Your task to perform on an android device: stop showing notifications on the lock screen Image 0: 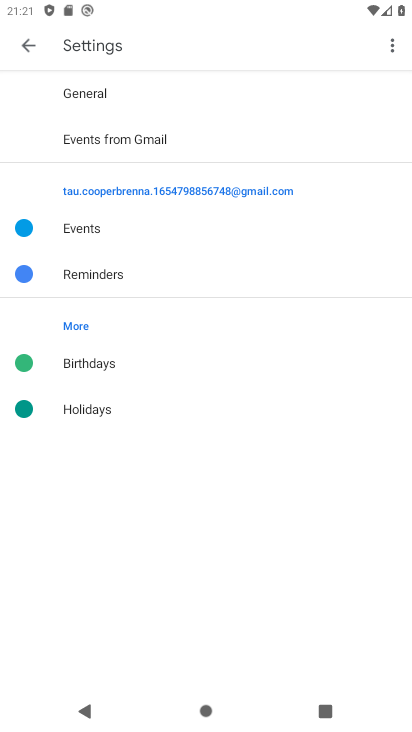
Step 0: press back button
Your task to perform on an android device: stop showing notifications on the lock screen Image 1: 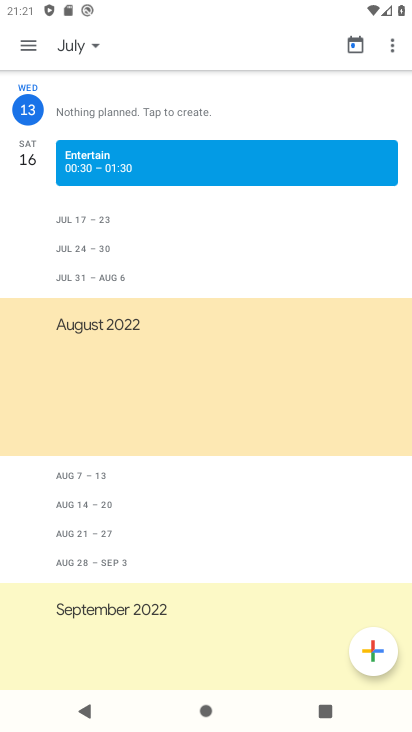
Step 1: press back button
Your task to perform on an android device: stop showing notifications on the lock screen Image 2: 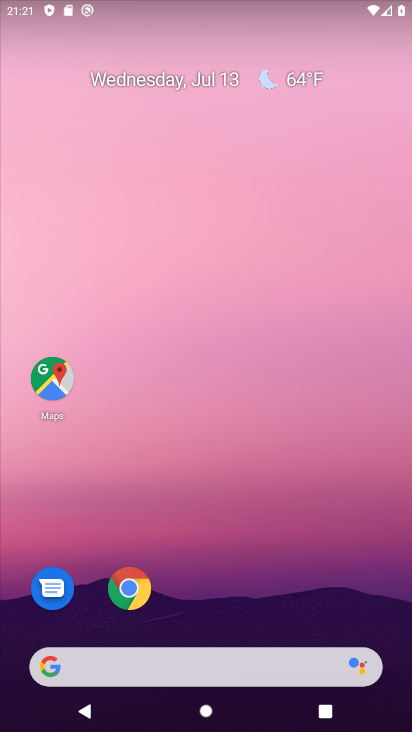
Step 2: drag from (239, 573) to (313, 1)
Your task to perform on an android device: stop showing notifications on the lock screen Image 3: 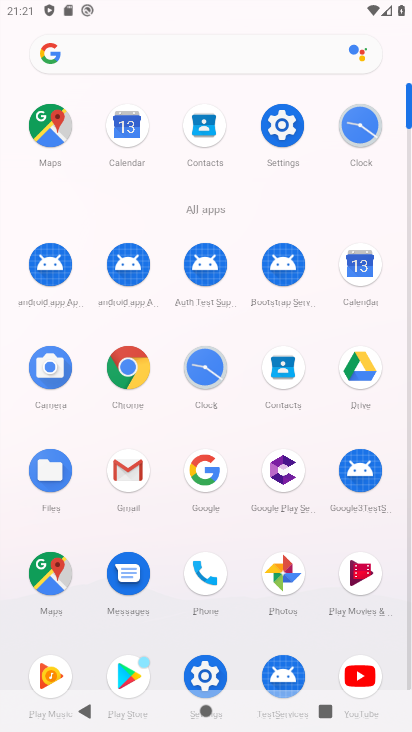
Step 3: click (292, 117)
Your task to perform on an android device: stop showing notifications on the lock screen Image 4: 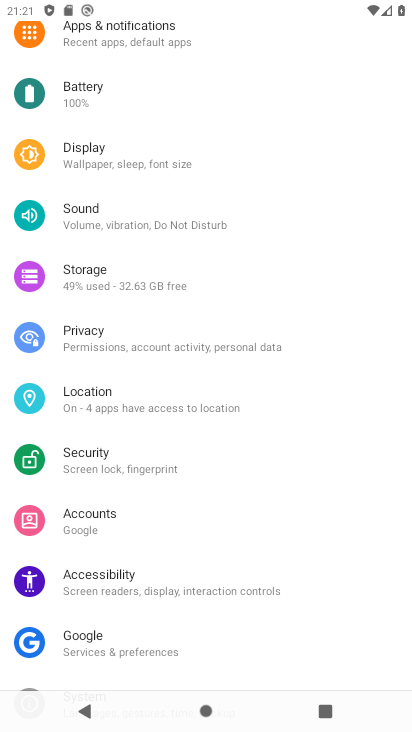
Step 4: drag from (282, 138) to (238, 631)
Your task to perform on an android device: stop showing notifications on the lock screen Image 5: 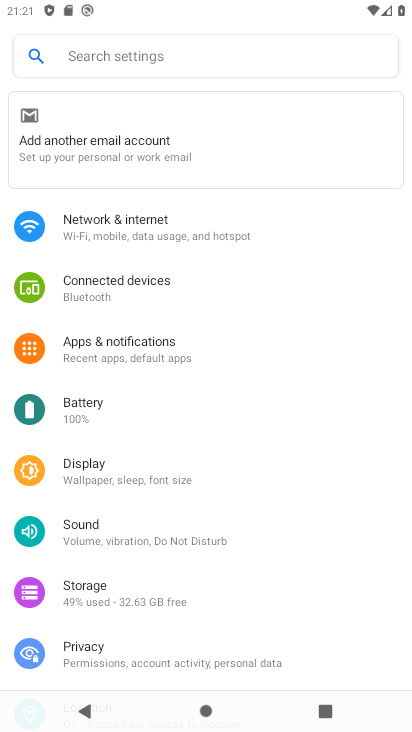
Step 5: click (139, 351)
Your task to perform on an android device: stop showing notifications on the lock screen Image 6: 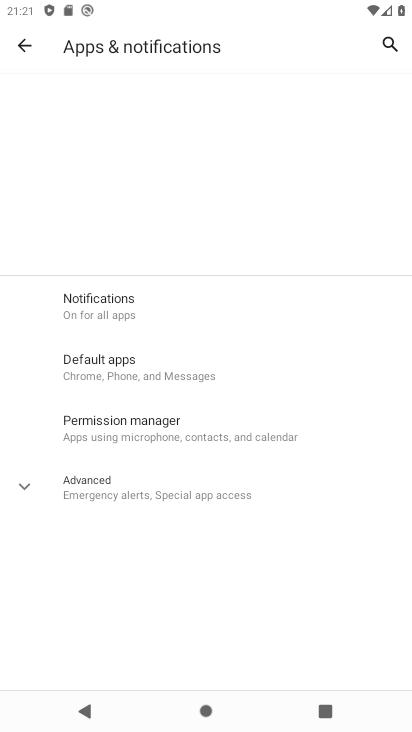
Step 6: click (135, 308)
Your task to perform on an android device: stop showing notifications on the lock screen Image 7: 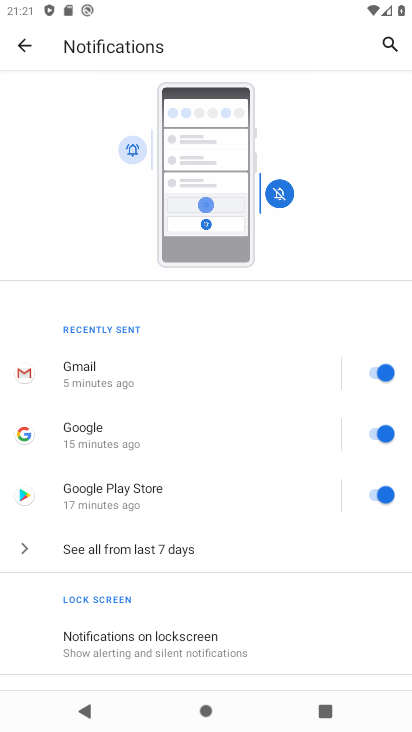
Step 7: click (135, 638)
Your task to perform on an android device: stop showing notifications on the lock screen Image 8: 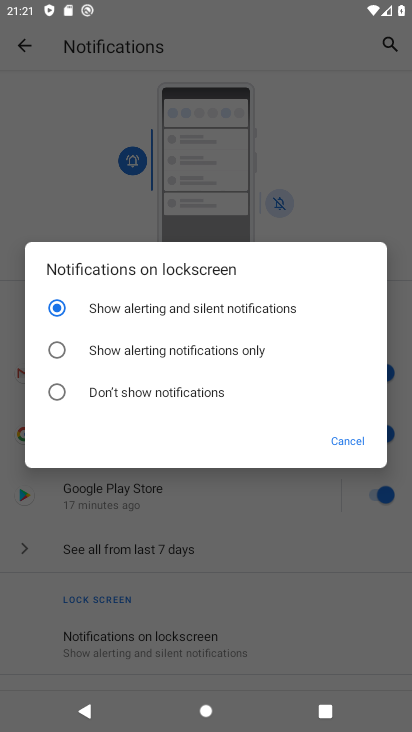
Step 8: click (76, 391)
Your task to perform on an android device: stop showing notifications on the lock screen Image 9: 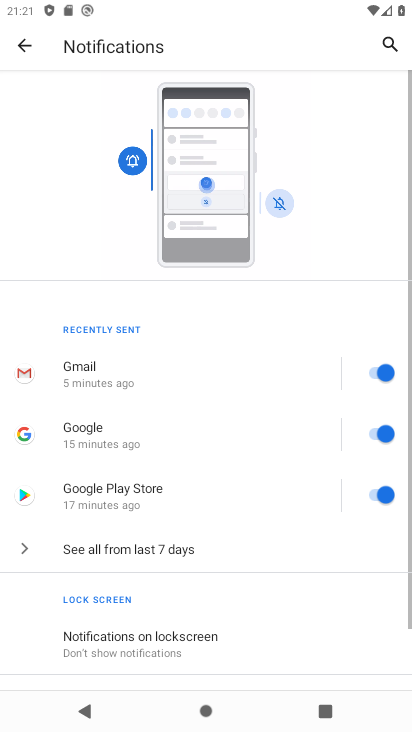
Step 9: task complete